Your task to perform on an android device: What is the news today? Image 0: 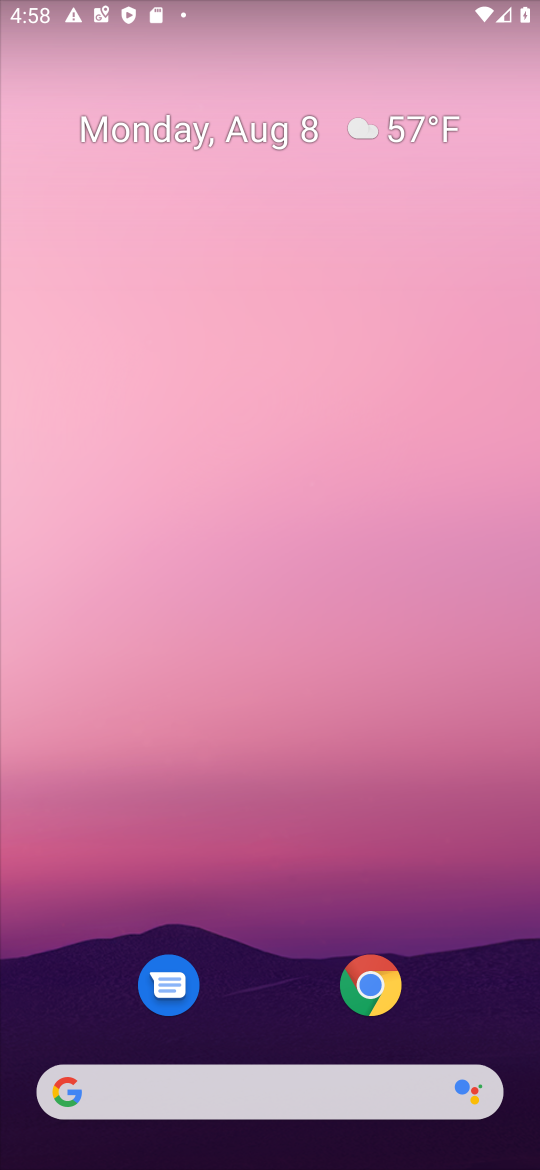
Step 0: click (308, 1085)
Your task to perform on an android device: What is the news today? Image 1: 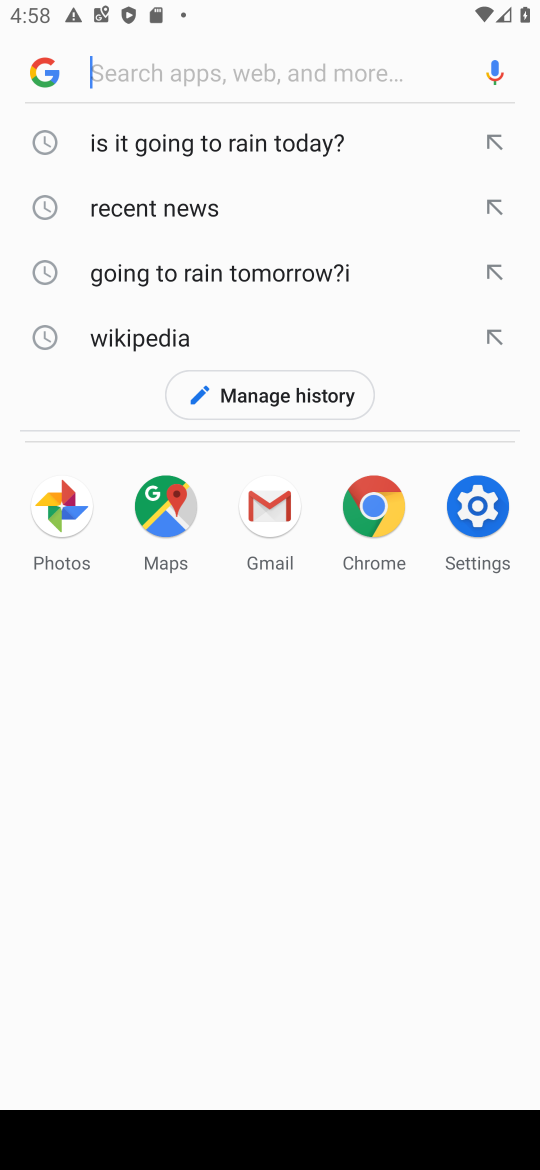
Step 1: type "What is the news today?"
Your task to perform on an android device: What is the news today? Image 2: 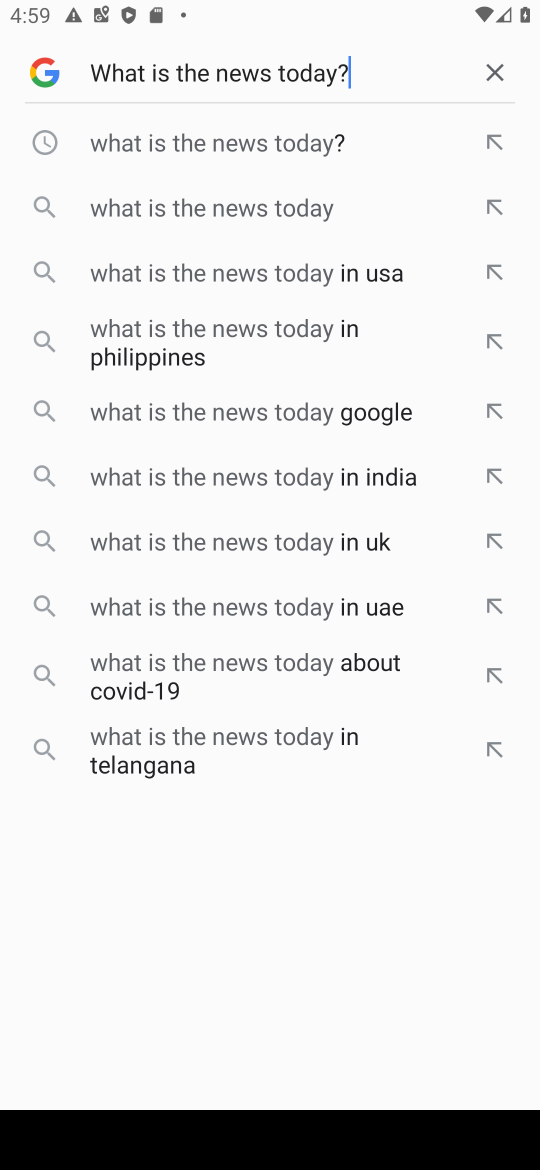
Step 2: press enter
Your task to perform on an android device: What is the news today? Image 3: 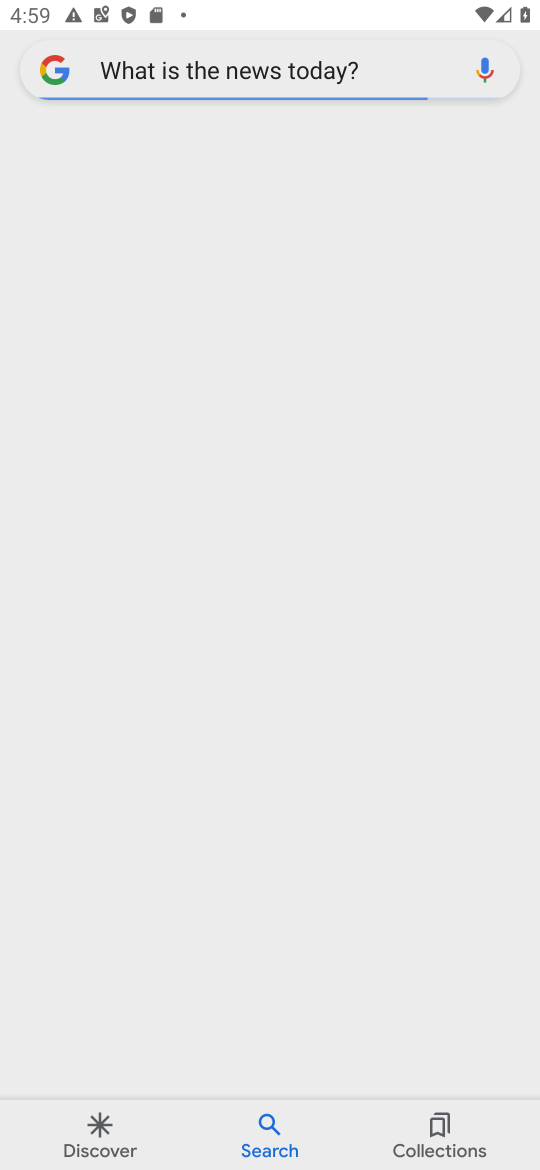
Step 3: press enter
Your task to perform on an android device: What is the news today? Image 4: 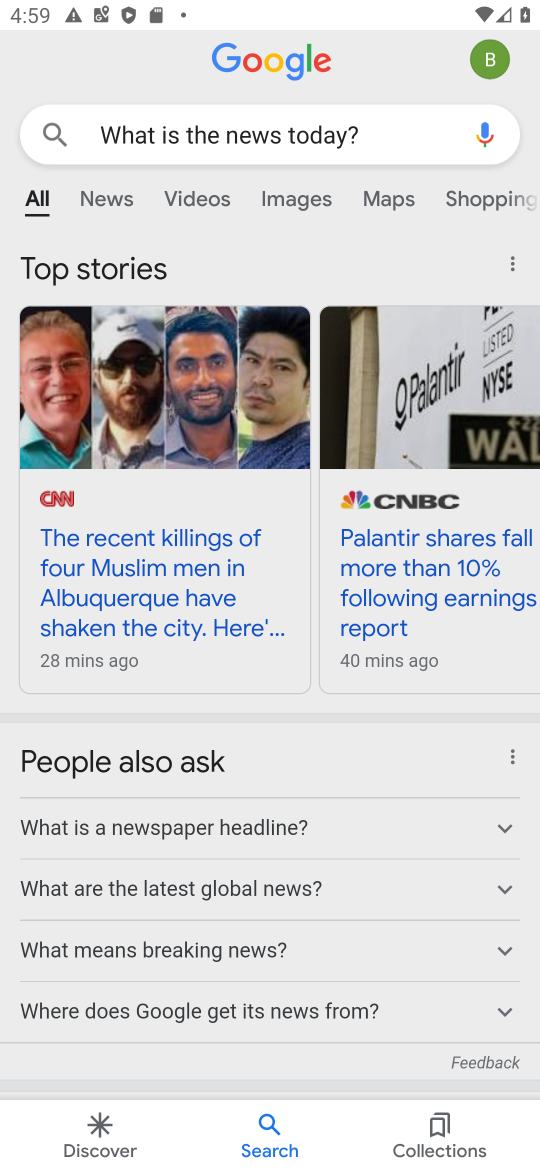
Step 4: task complete